Your task to perform on an android device: Open calendar and show me the second week of next month Image 0: 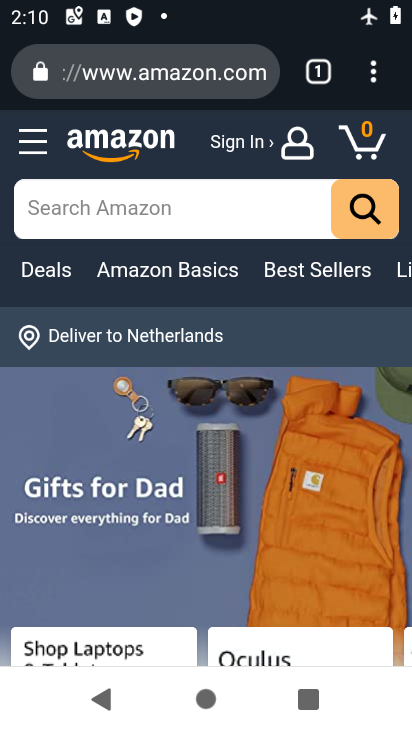
Step 0: press home button
Your task to perform on an android device: Open calendar and show me the second week of next month Image 1: 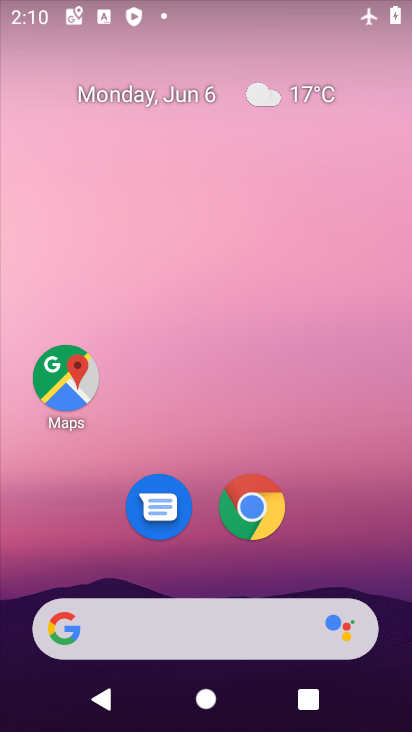
Step 1: drag from (295, 505) to (319, 14)
Your task to perform on an android device: Open calendar and show me the second week of next month Image 2: 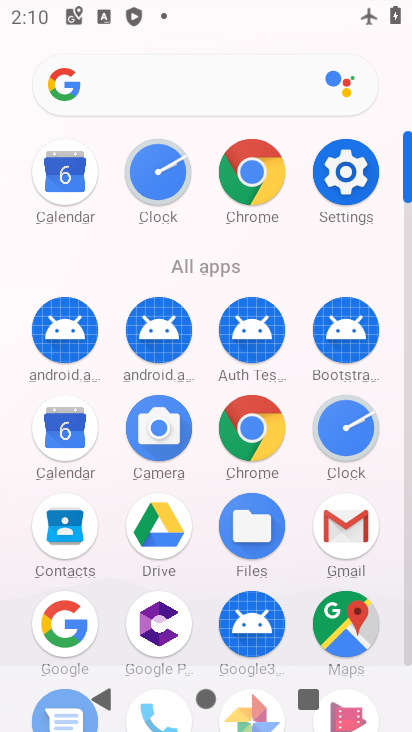
Step 2: click (78, 172)
Your task to perform on an android device: Open calendar and show me the second week of next month Image 3: 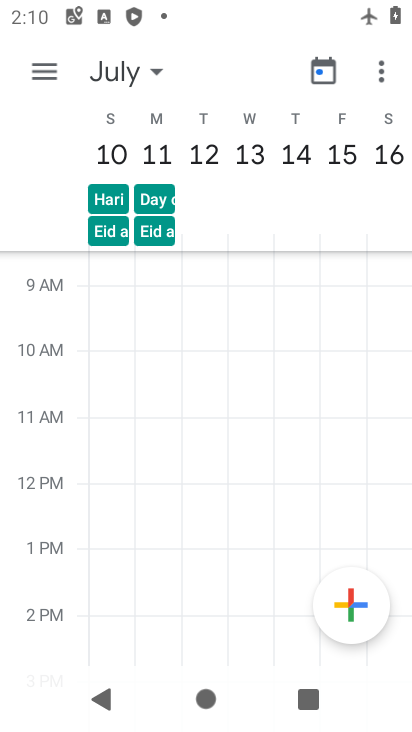
Step 3: task complete